Your task to perform on an android device: open app "Microsoft Outlook" (install if not already installed) Image 0: 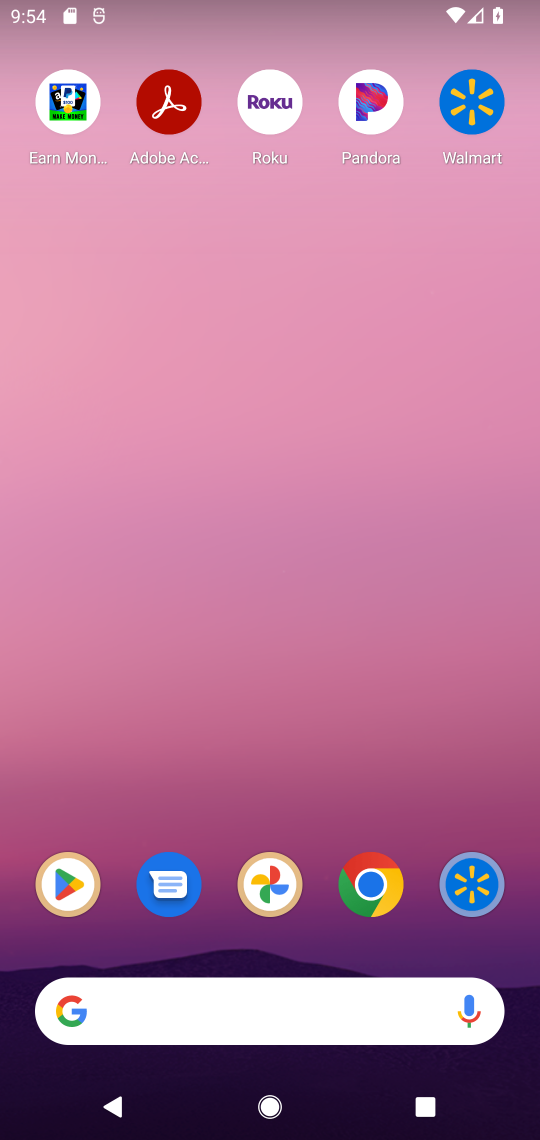
Step 0: click (64, 886)
Your task to perform on an android device: open app "Microsoft Outlook" (install if not already installed) Image 1: 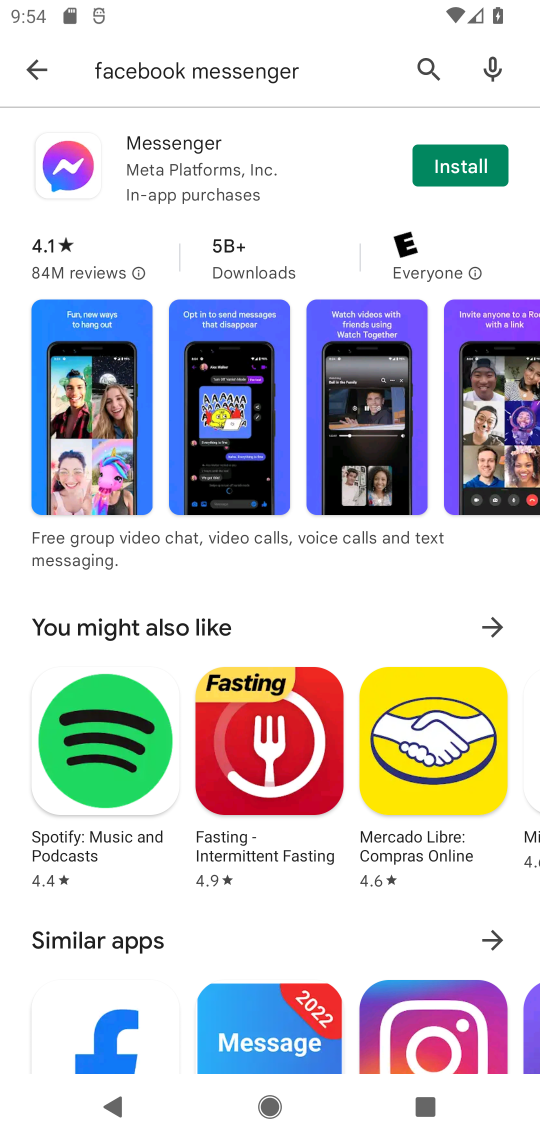
Step 1: click (244, 40)
Your task to perform on an android device: open app "Microsoft Outlook" (install if not already installed) Image 2: 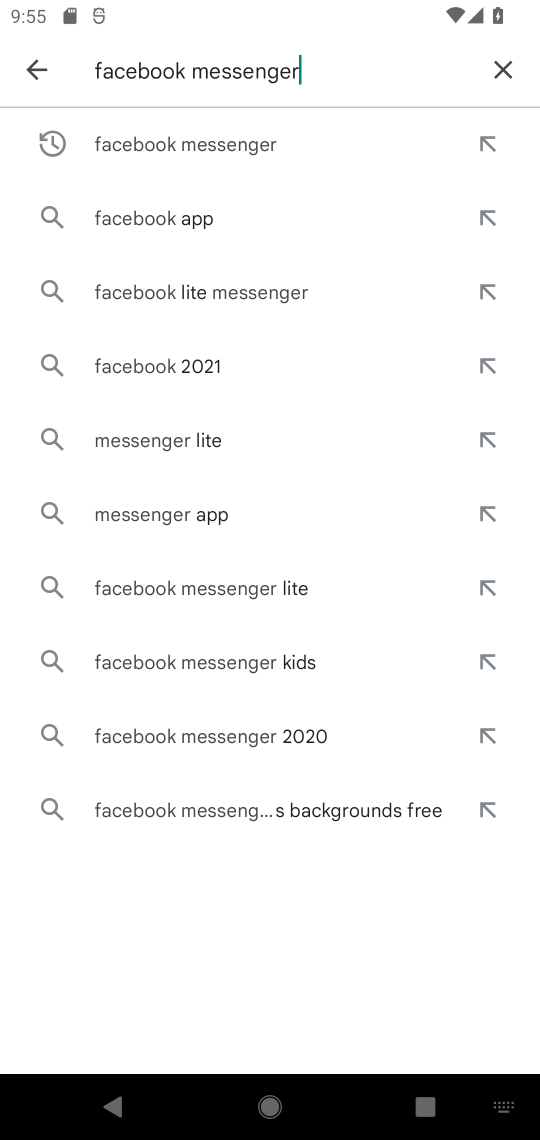
Step 2: click (481, 68)
Your task to perform on an android device: open app "Microsoft Outlook" (install if not already installed) Image 3: 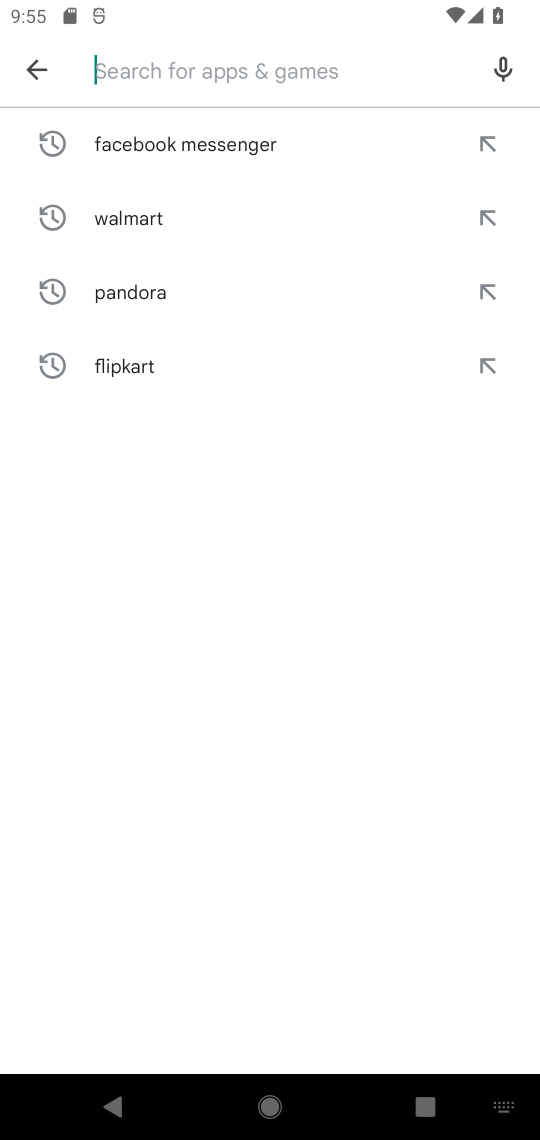
Step 3: type "microsoft Outlook"
Your task to perform on an android device: open app "Microsoft Outlook" (install if not already installed) Image 4: 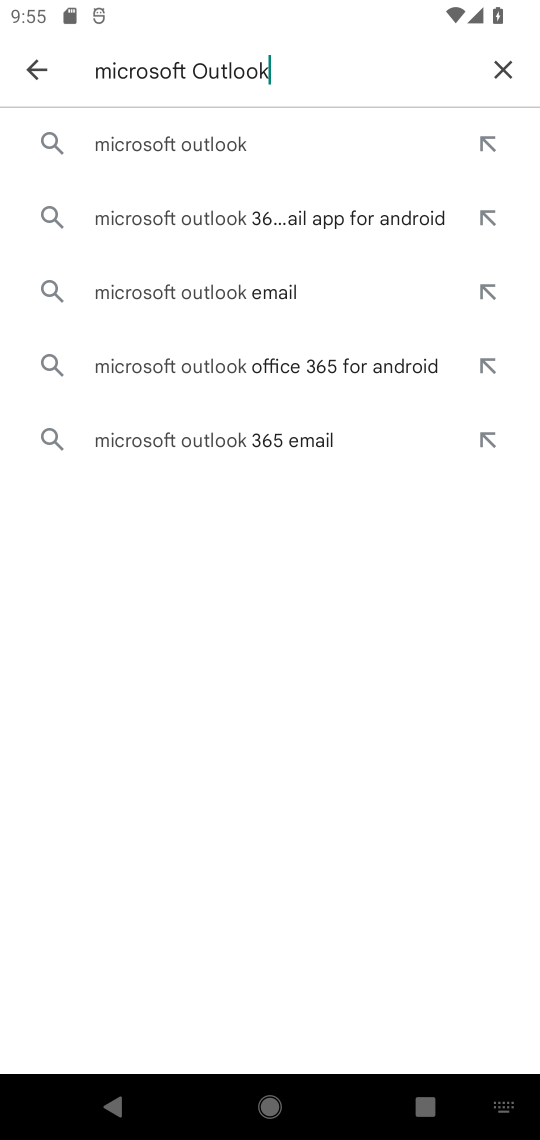
Step 4: click (246, 145)
Your task to perform on an android device: open app "Microsoft Outlook" (install if not already installed) Image 5: 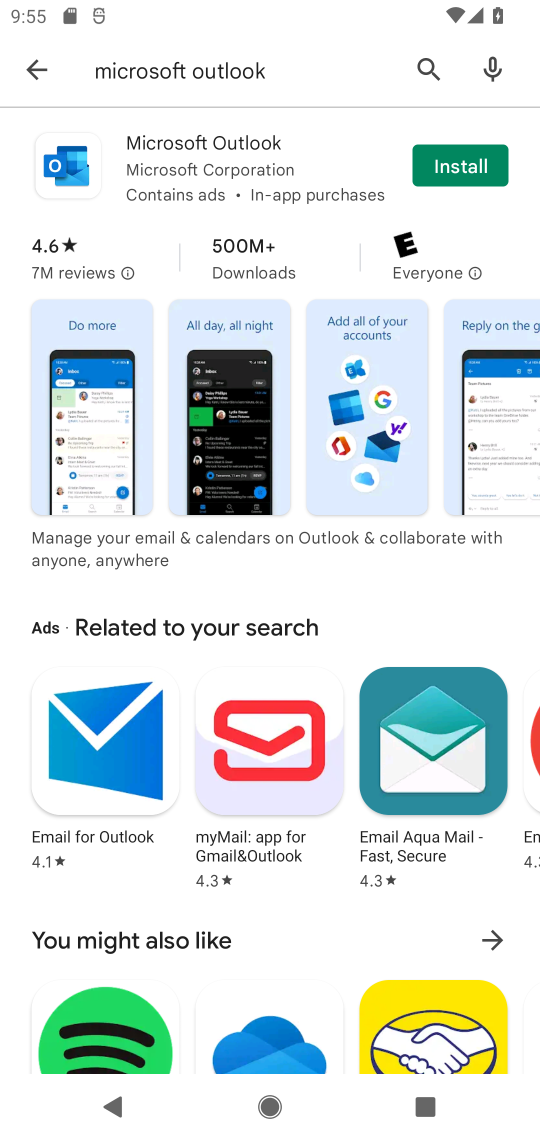
Step 5: click (426, 160)
Your task to perform on an android device: open app "Microsoft Outlook" (install if not already installed) Image 6: 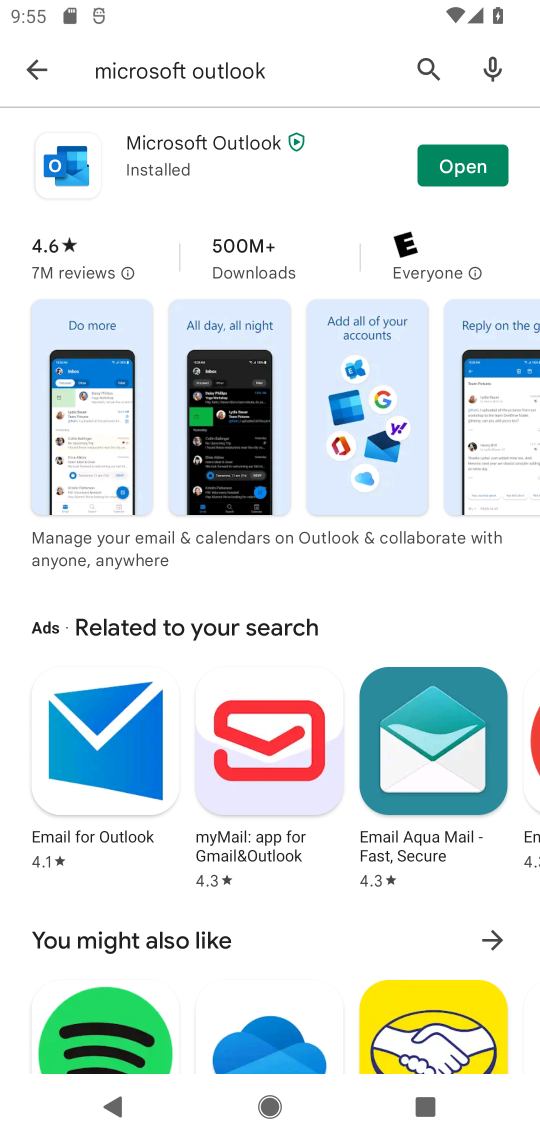
Step 6: click (452, 144)
Your task to perform on an android device: open app "Microsoft Outlook" (install if not already installed) Image 7: 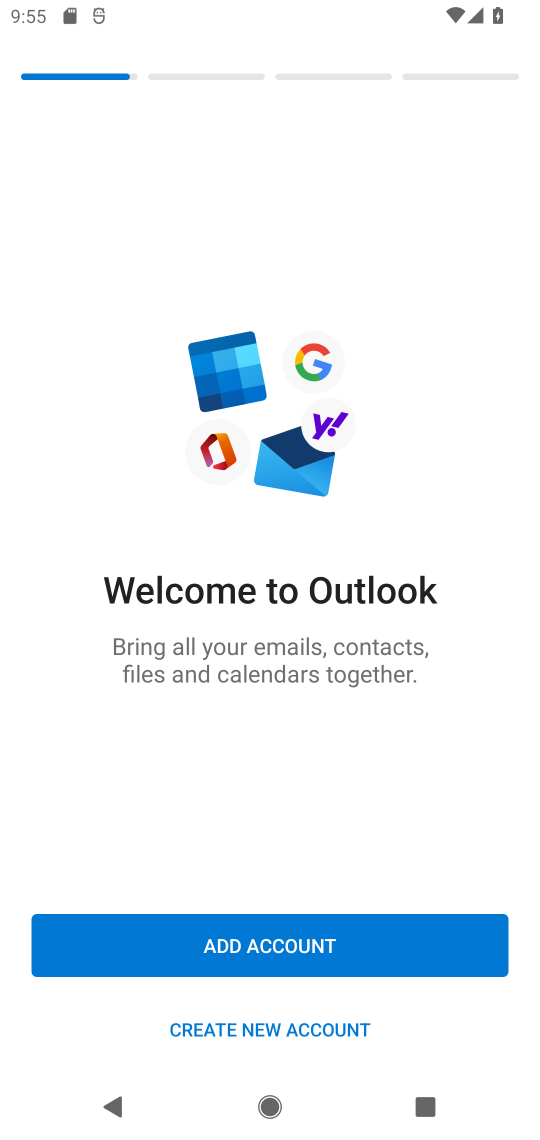
Step 7: task complete